Your task to perform on an android device: Go to Amazon Image 0: 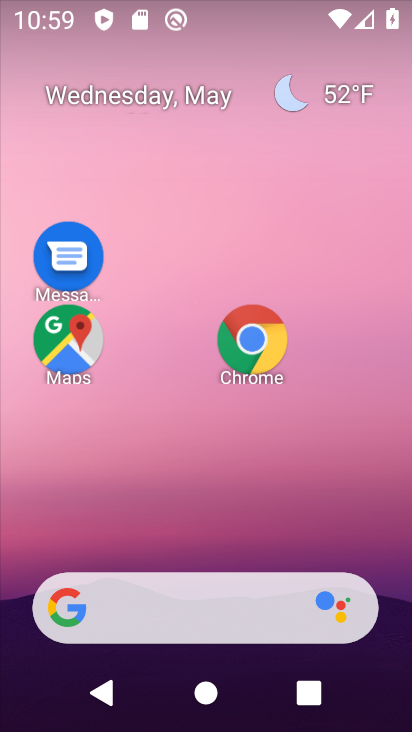
Step 0: click (251, 341)
Your task to perform on an android device: Go to Amazon Image 1: 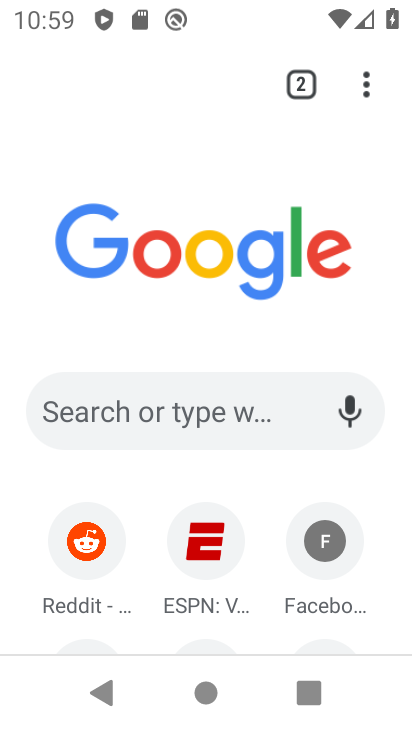
Step 1: drag from (237, 544) to (232, 333)
Your task to perform on an android device: Go to Amazon Image 2: 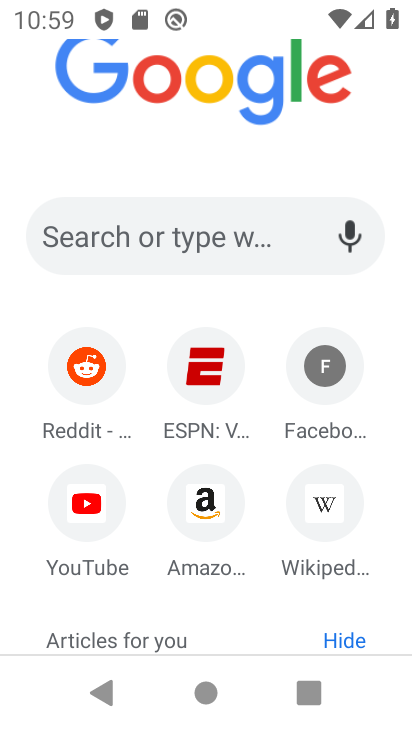
Step 2: click (211, 498)
Your task to perform on an android device: Go to Amazon Image 3: 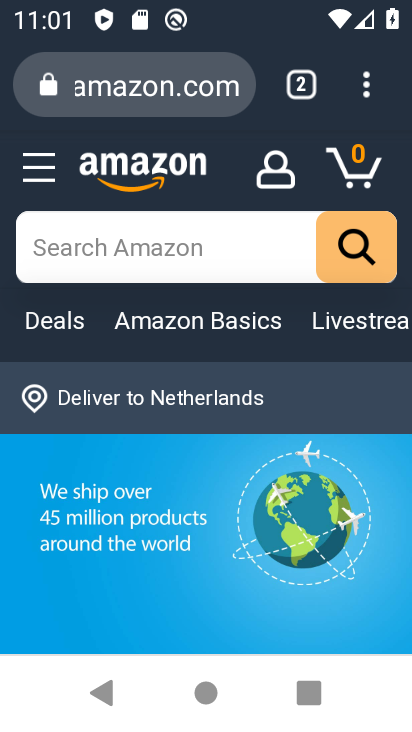
Step 3: task complete